Your task to perform on an android device: star an email in the gmail app Image 0: 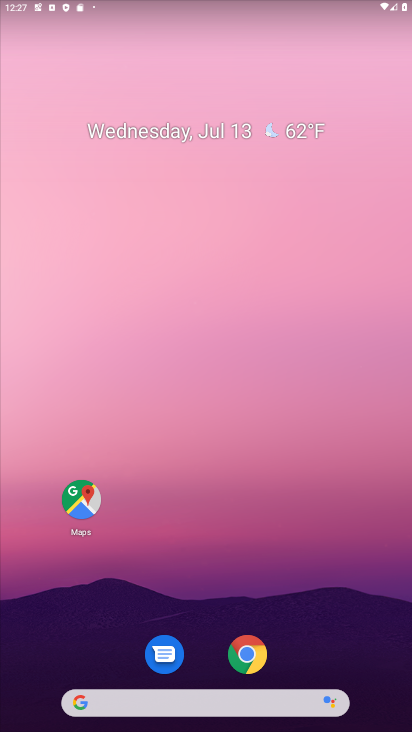
Step 0: drag from (238, 686) to (301, 244)
Your task to perform on an android device: star an email in the gmail app Image 1: 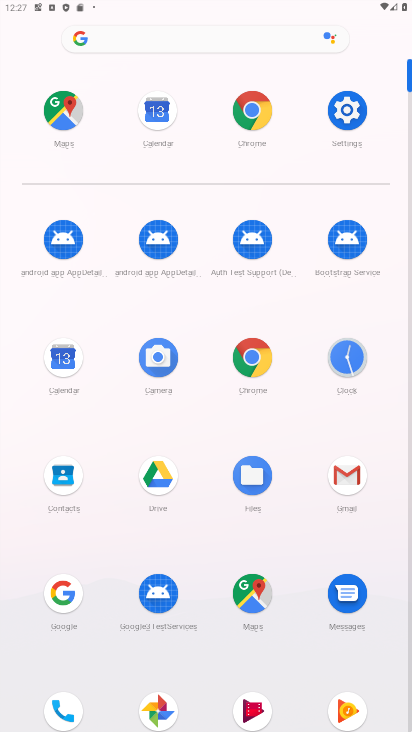
Step 1: click (354, 469)
Your task to perform on an android device: star an email in the gmail app Image 2: 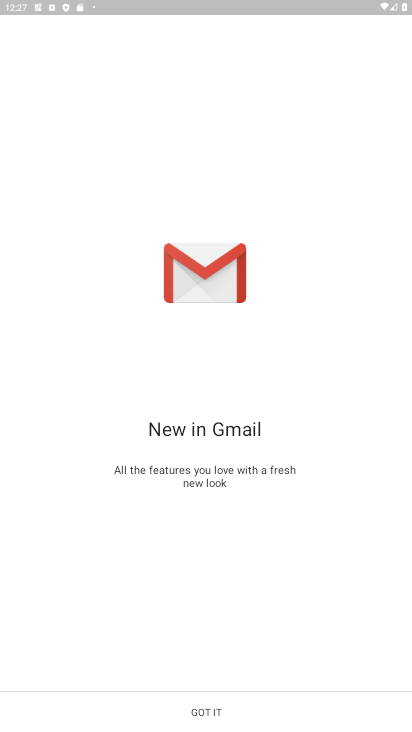
Step 2: click (295, 701)
Your task to perform on an android device: star an email in the gmail app Image 3: 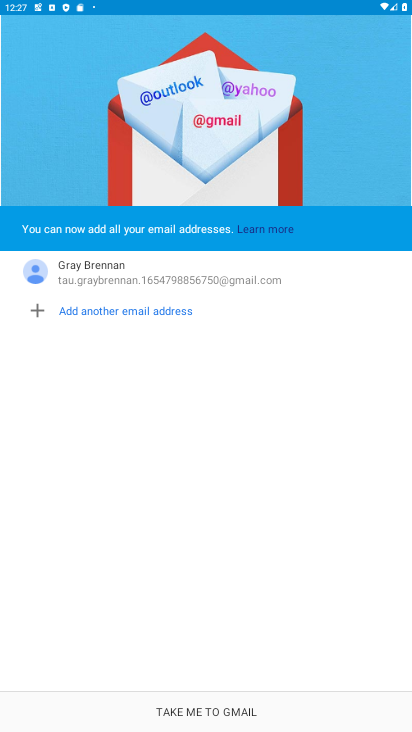
Step 3: click (293, 702)
Your task to perform on an android device: star an email in the gmail app Image 4: 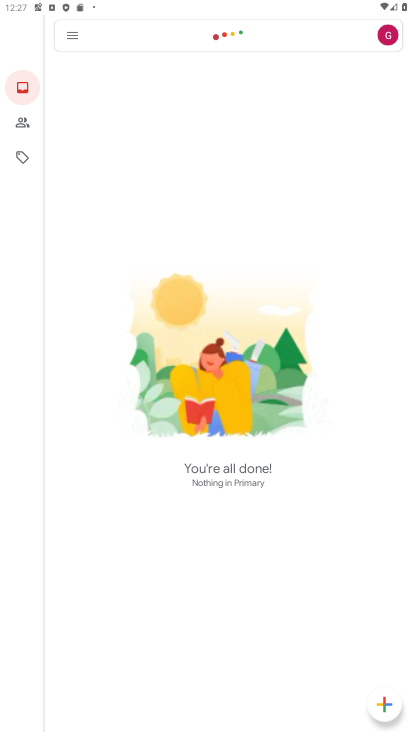
Step 4: click (82, 36)
Your task to perform on an android device: star an email in the gmail app Image 5: 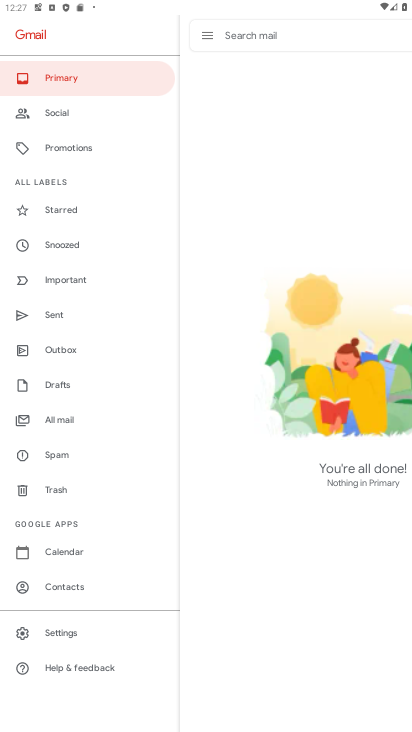
Step 5: click (76, 204)
Your task to perform on an android device: star an email in the gmail app Image 6: 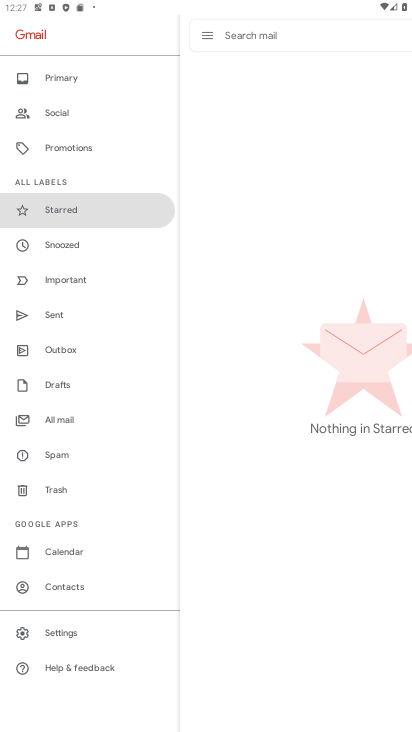
Step 6: task complete